Your task to perform on an android device: Show me the alarms in the clock app Image 0: 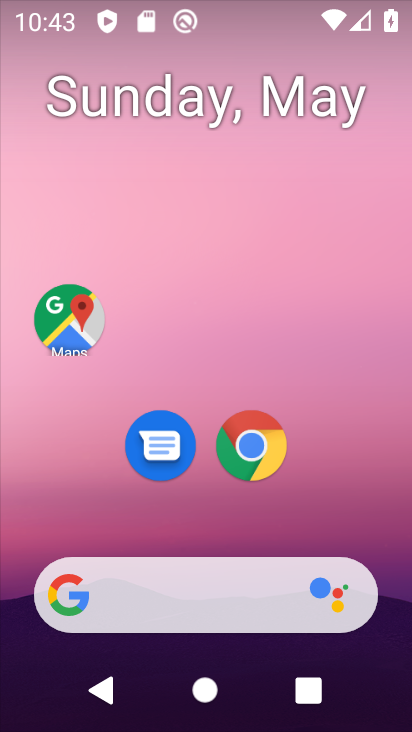
Step 0: drag from (332, 527) to (193, 4)
Your task to perform on an android device: Show me the alarms in the clock app Image 1: 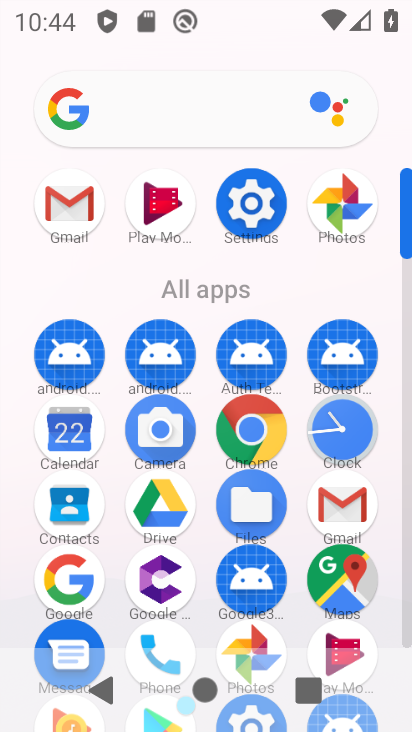
Step 1: click (346, 419)
Your task to perform on an android device: Show me the alarms in the clock app Image 2: 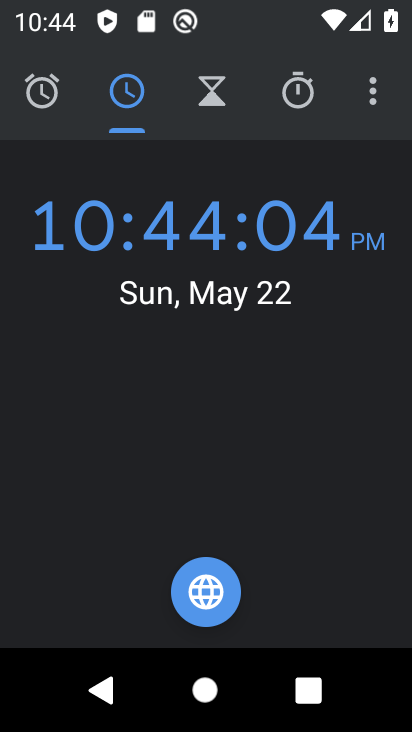
Step 2: click (42, 108)
Your task to perform on an android device: Show me the alarms in the clock app Image 3: 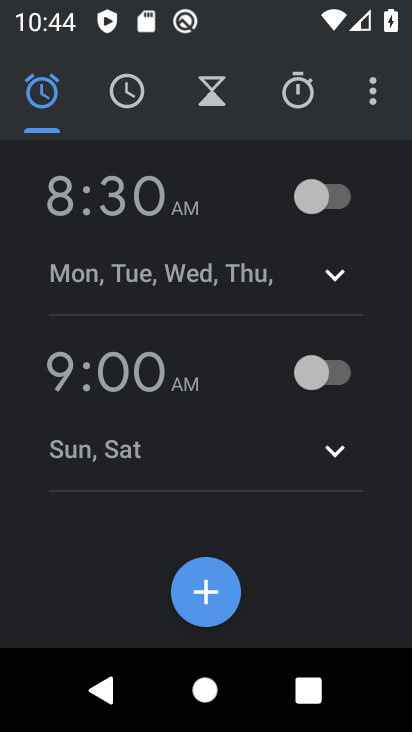
Step 3: task complete